Your task to perform on an android device: Show me popular games on the Play Store Image 0: 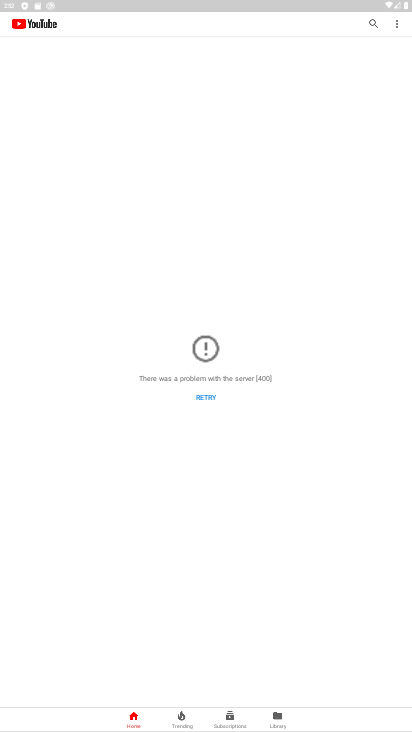
Step 0: press home button
Your task to perform on an android device: Show me popular games on the Play Store Image 1: 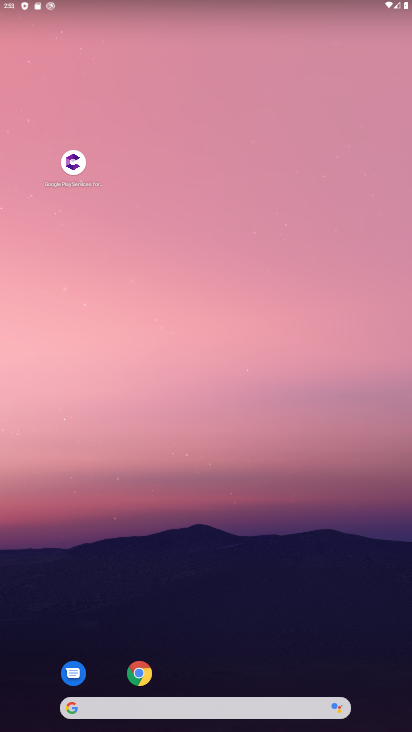
Step 1: drag from (248, 649) to (209, 219)
Your task to perform on an android device: Show me popular games on the Play Store Image 2: 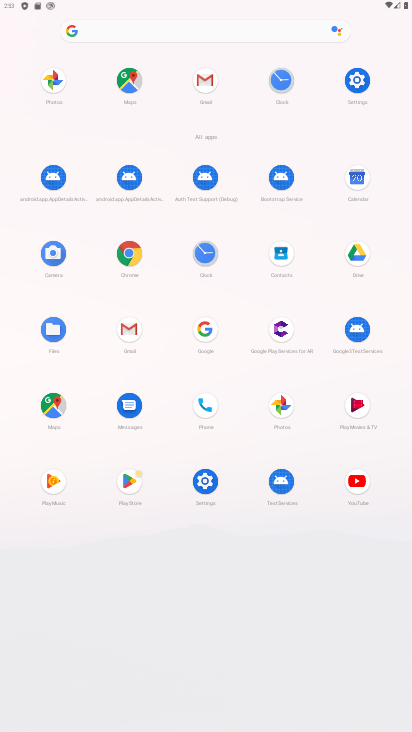
Step 2: click (128, 483)
Your task to perform on an android device: Show me popular games on the Play Store Image 3: 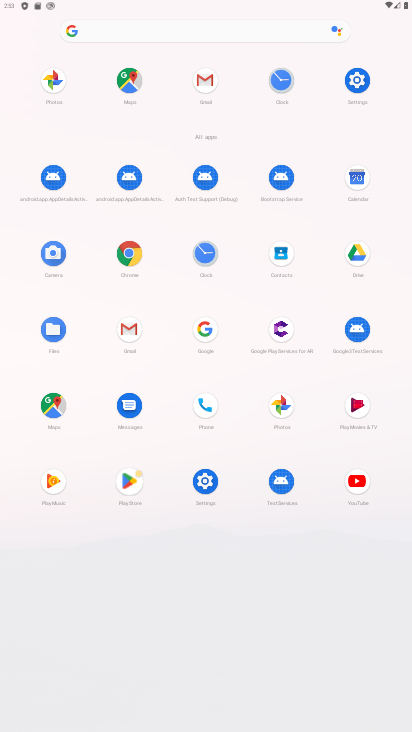
Step 3: click (127, 488)
Your task to perform on an android device: Show me popular games on the Play Store Image 4: 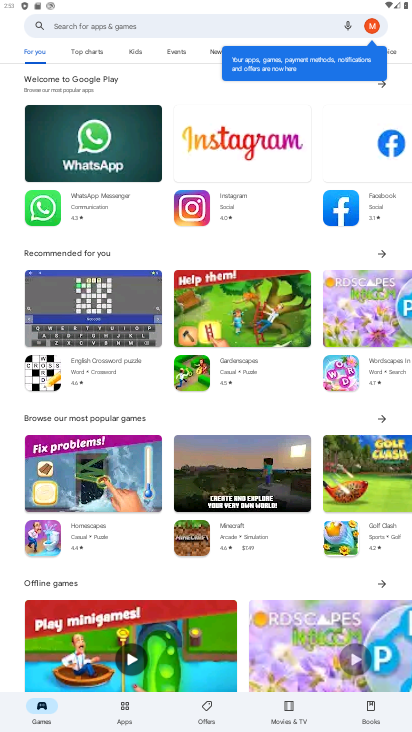
Step 4: click (214, 407)
Your task to perform on an android device: Show me popular games on the Play Store Image 5: 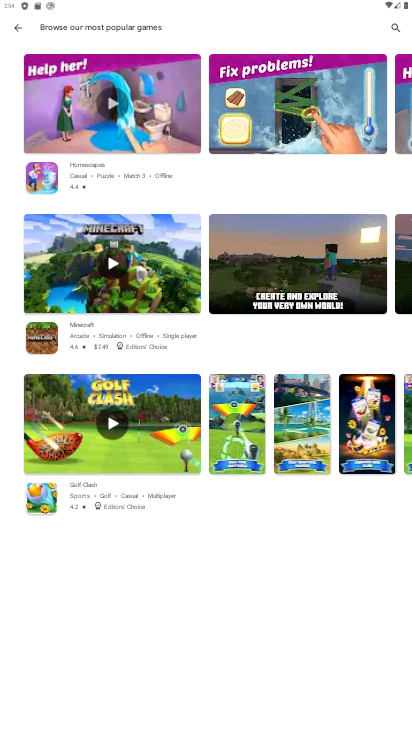
Step 5: task complete